Your task to perform on an android device: remove spam from my inbox in the gmail app Image 0: 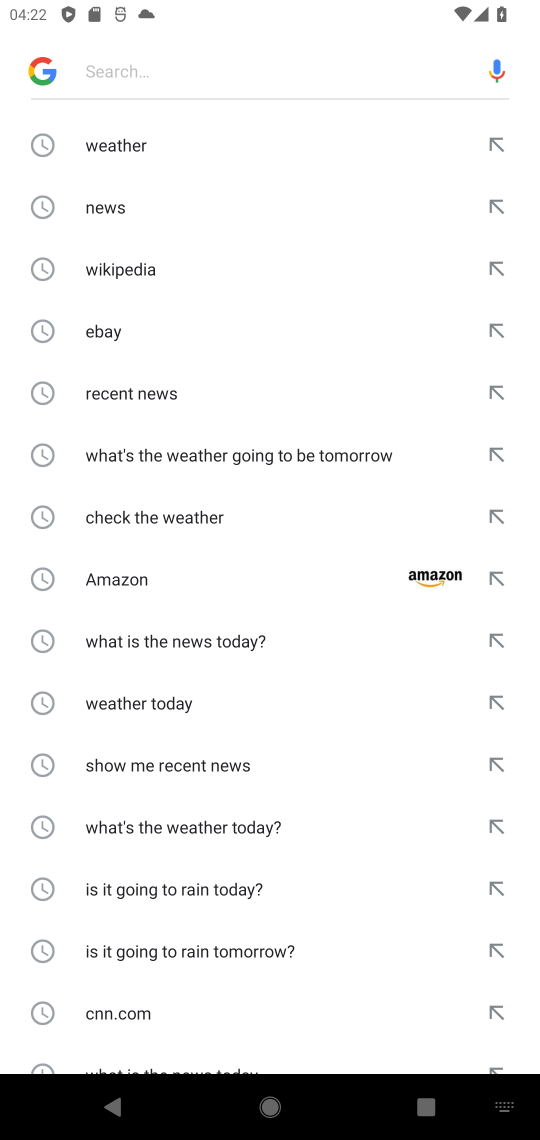
Step 0: press home button
Your task to perform on an android device: remove spam from my inbox in the gmail app Image 1: 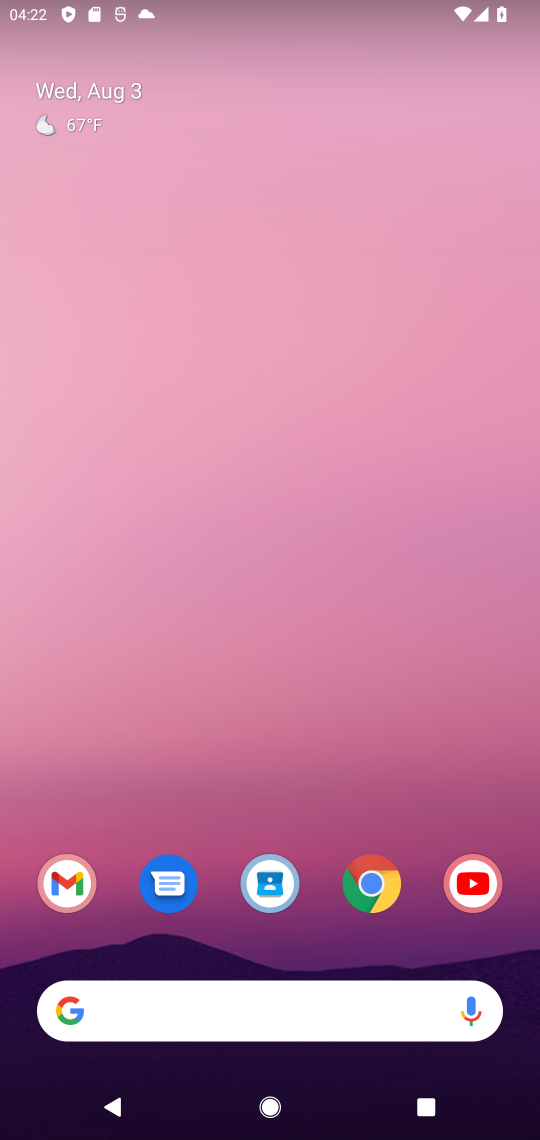
Step 1: click (69, 884)
Your task to perform on an android device: remove spam from my inbox in the gmail app Image 2: 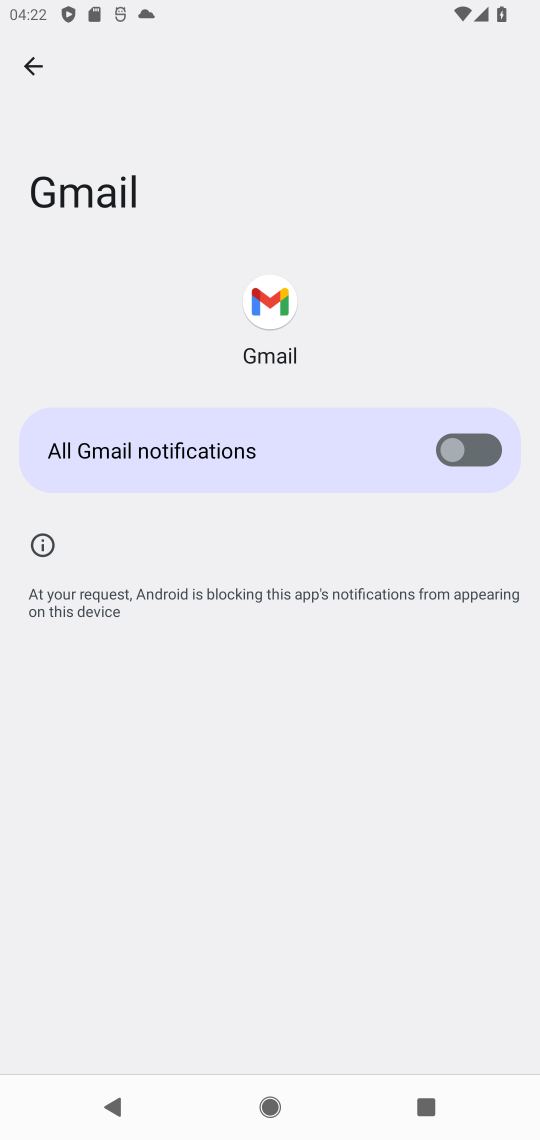
Step 2: click (33, 56)
Your task to perform on an android device: remove spam from my inbox in the gmail app Image 3: 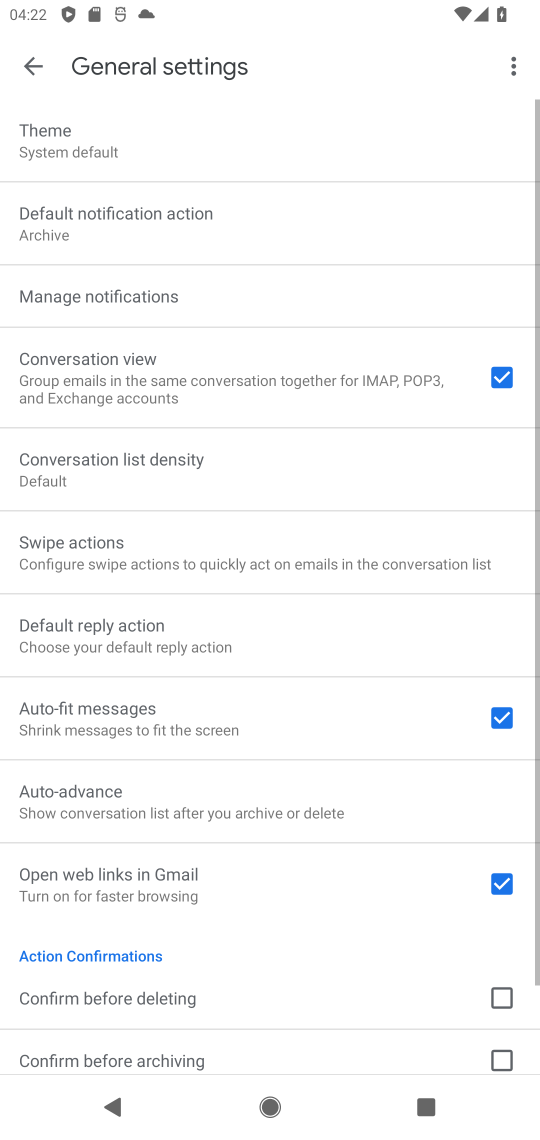
Step 3: click (30, 65)
Your task to perform on an android device: remove spam from my inbox in the gmail app Image 4: 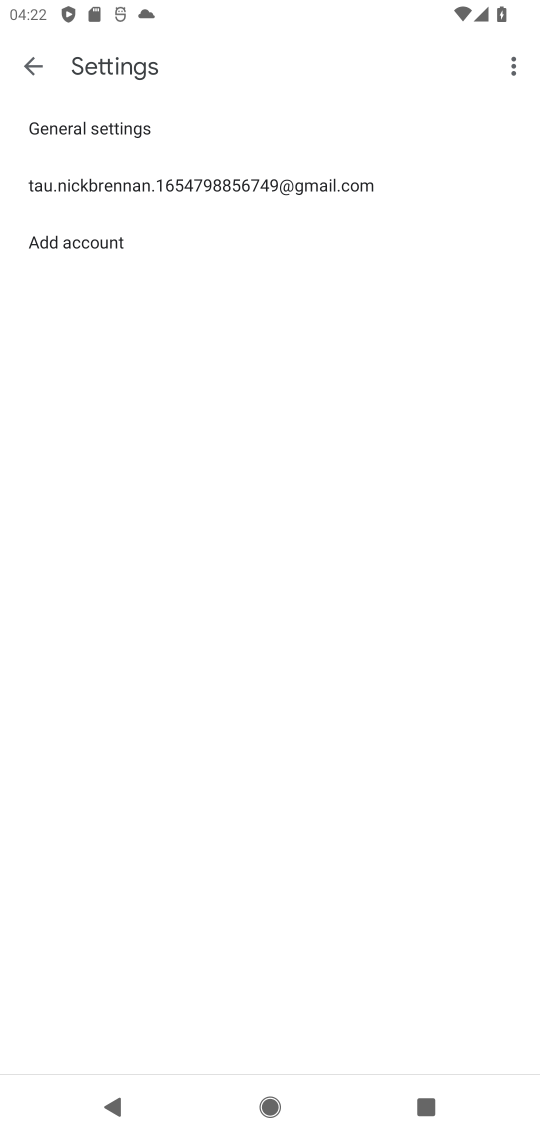
Step 4: click (32, 67)
Your task to perform on an android device: remove spam from my inbox in the gmail app Image 5: 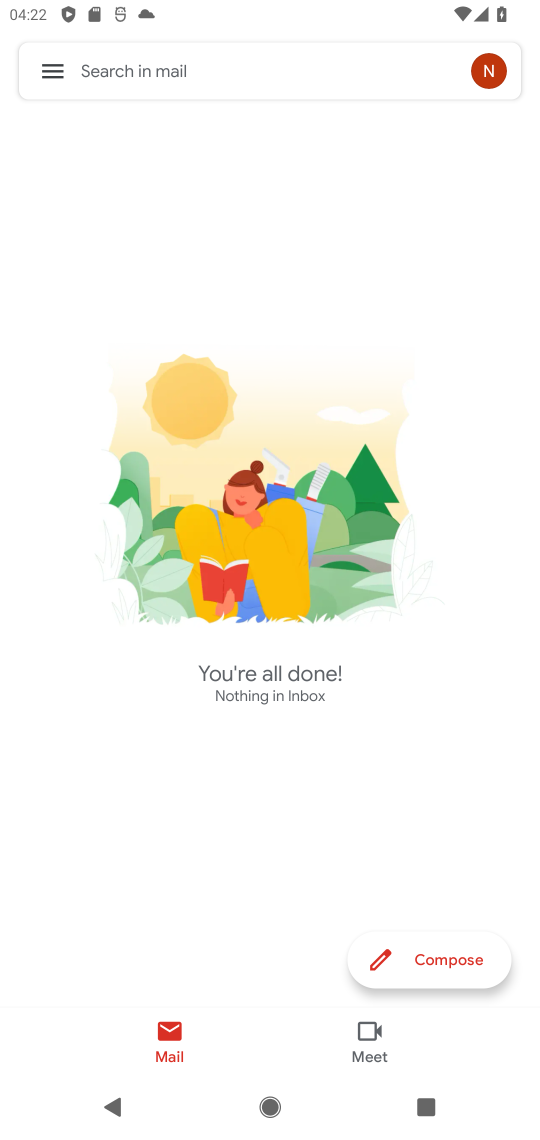
Step 5: click (35, 65)
Your task to perform on an android device: remove spam from my inbox in the gmail app Image 6: 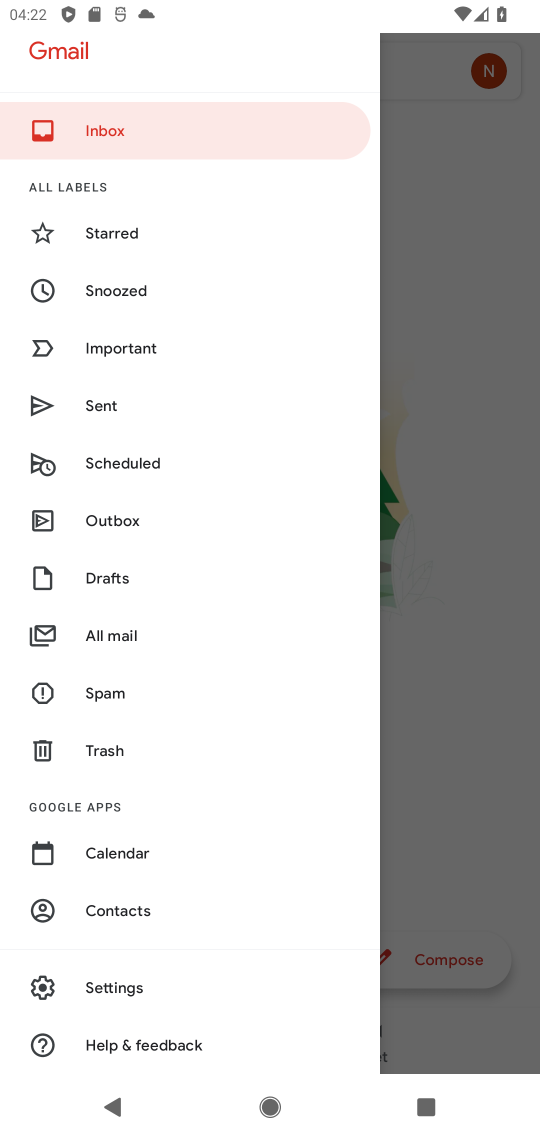
Step 6: click (132, 993)
Your task to perform on an android device: remove spam from my inbox in the gmail app Image 7: 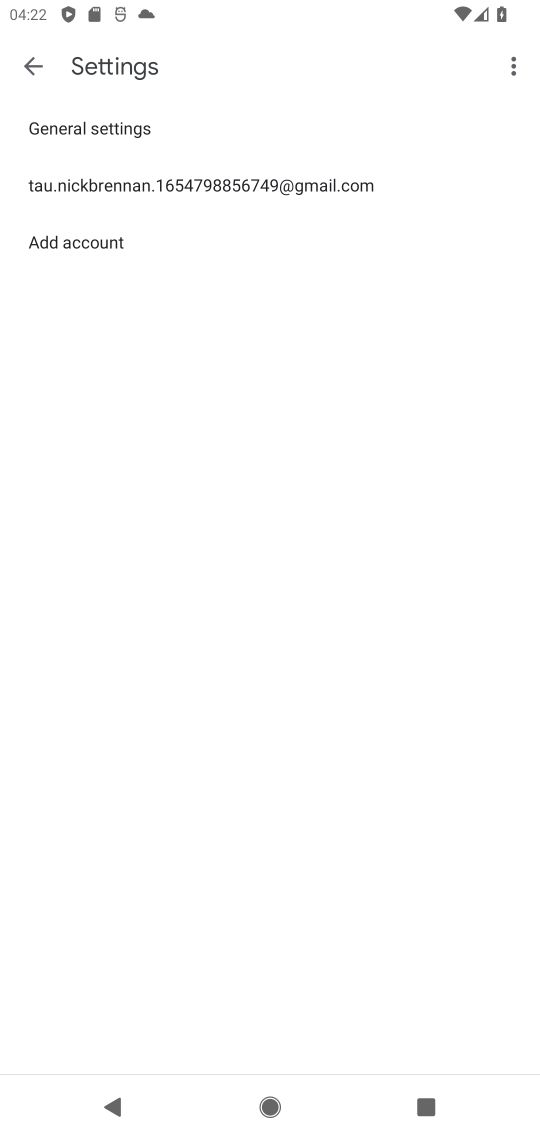
Step 7: click (21, 65)
Your task to perform on an android device: remove spam from my inbox in the gmail app Image 8: 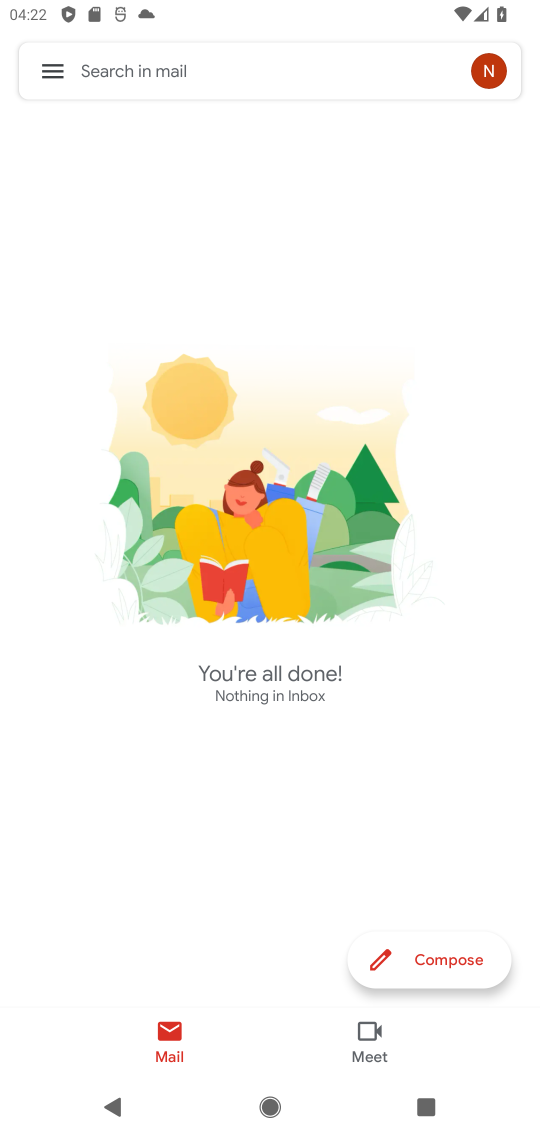
Step 8: click (58, 66)
Your task to perform on an android device: remove spam from my inbox in the gmail app Image 9: 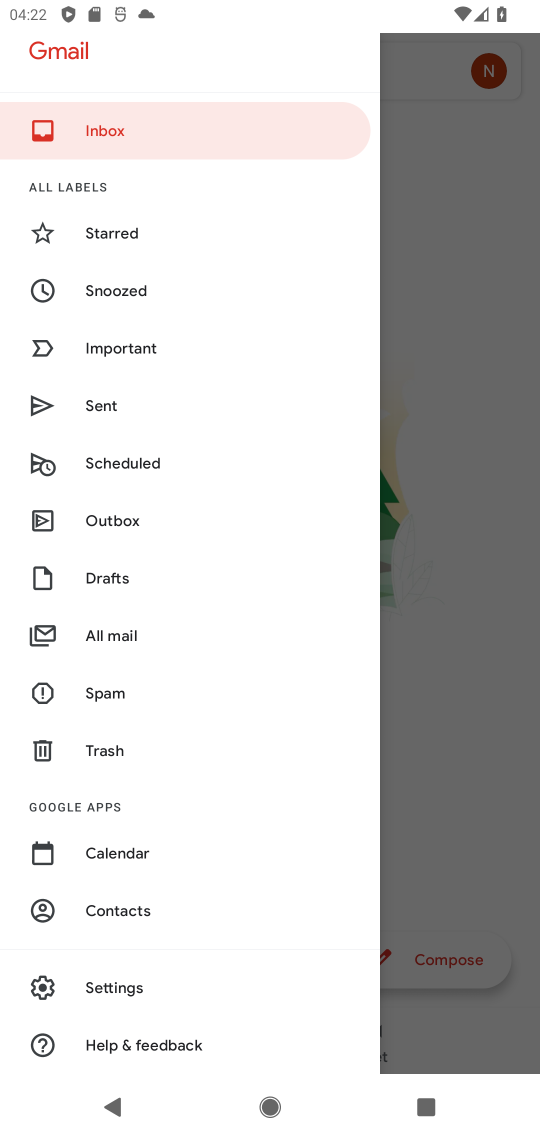
Step 9: click (118, 692)
Your task to perform on an android device: remove spam from my inbox in the gmail app Image 10: 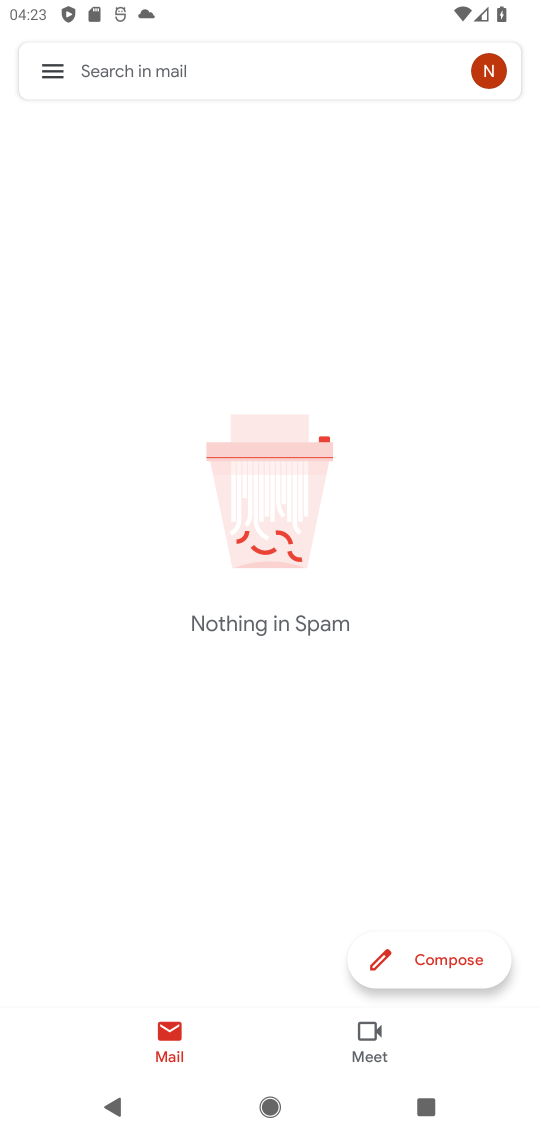
Step 10: task complete